Your task to perform on an android device: Add macbook air to the cart on costco.com, then select checkout. Image 0: 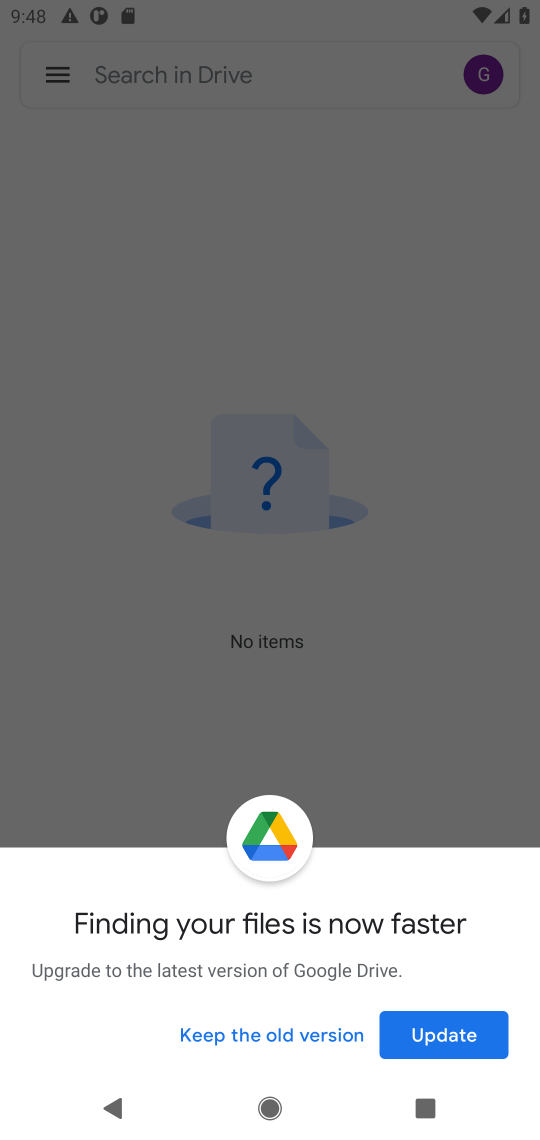
Step 0: press home button
Your task to perform on an android device: Add macbook air to the cart on costco.com, then select checkout. Image 1: 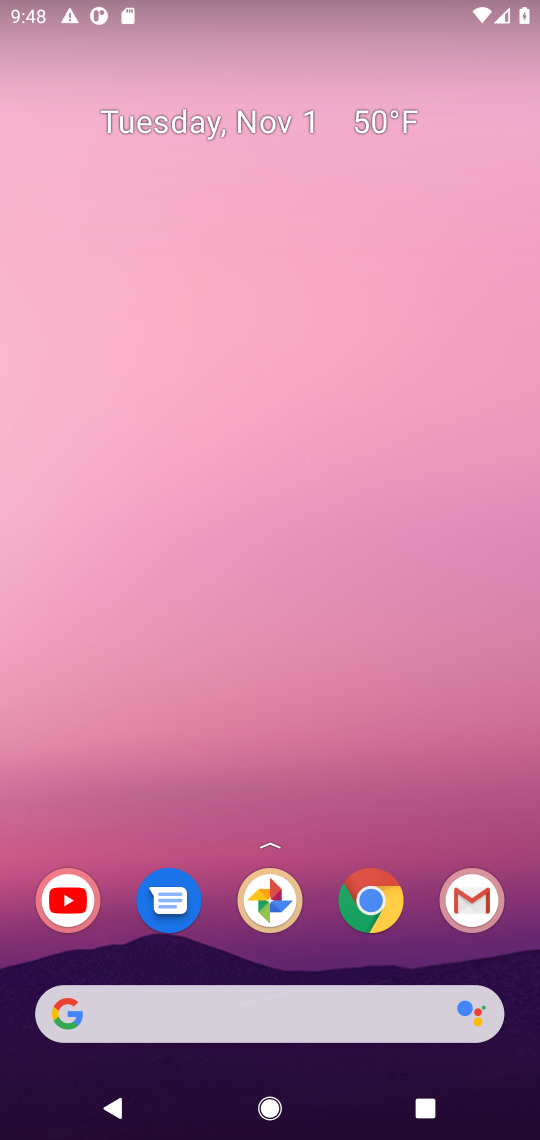
Step 1: click (389, 899)
Your task to perform on an android device: Add macbook air to the cart on costco.com, then select checkout. Image 2: 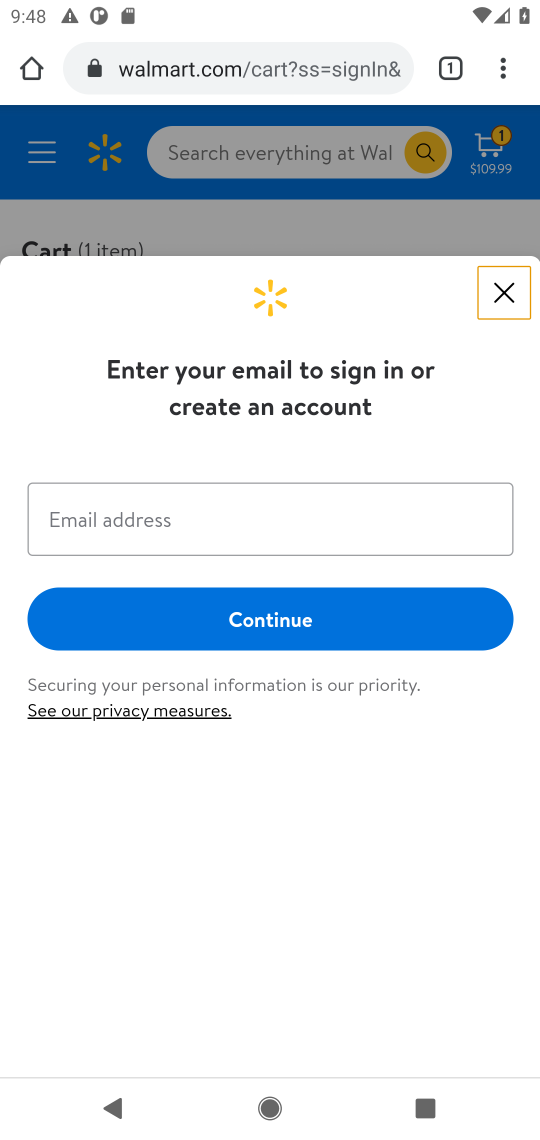
Step 2: click (298, 52)
Your task to perform on an android device: Add macbook air to the cart on costco.com, then select checkout. Image 3: 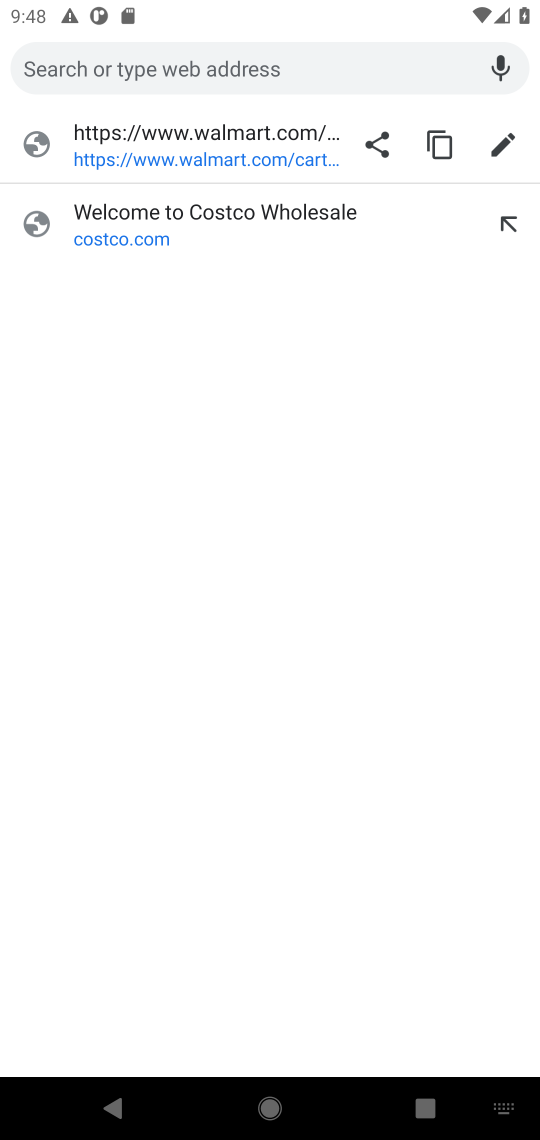
Step 3: click (311, 197)
Your task to perform on an android device: Add macbook air to the cart on costco.com, then select checkout. Image 4: 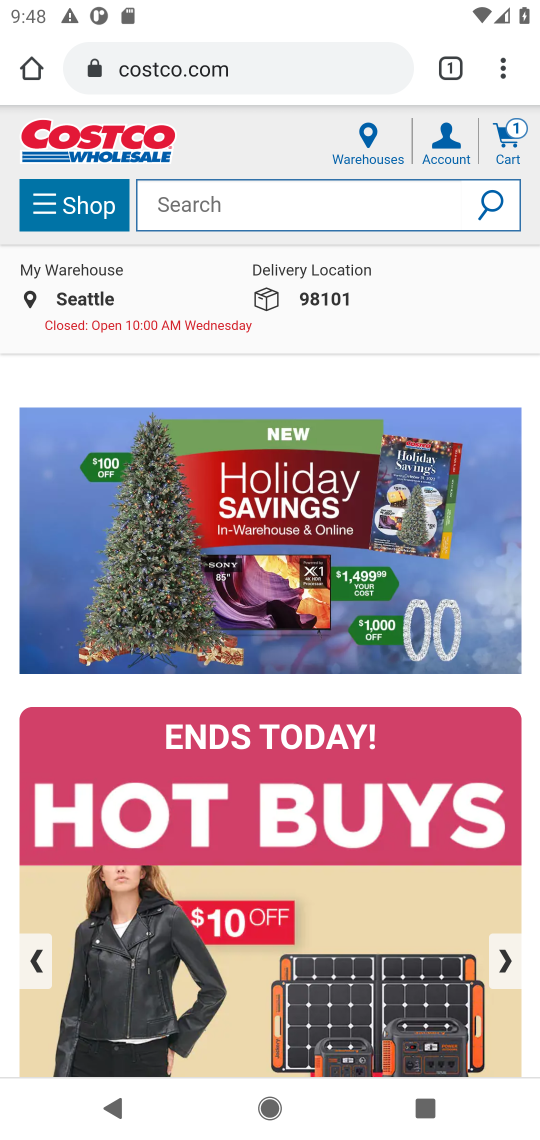
Step 4: click (305, 214)
Your task to perform on an android device: Add macbook air to the cart on costco.com, then select checkout. Image 5: 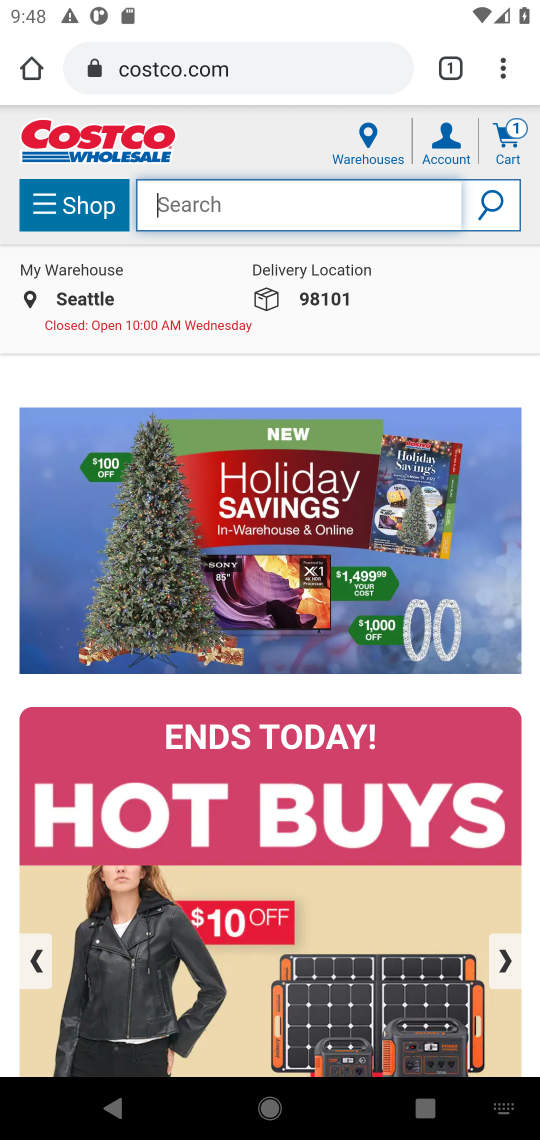
Step 5: type "macbook air"
Your task to perform on an android device: Add macbook air to the cart on costco.com, then select checkout. Image 6: 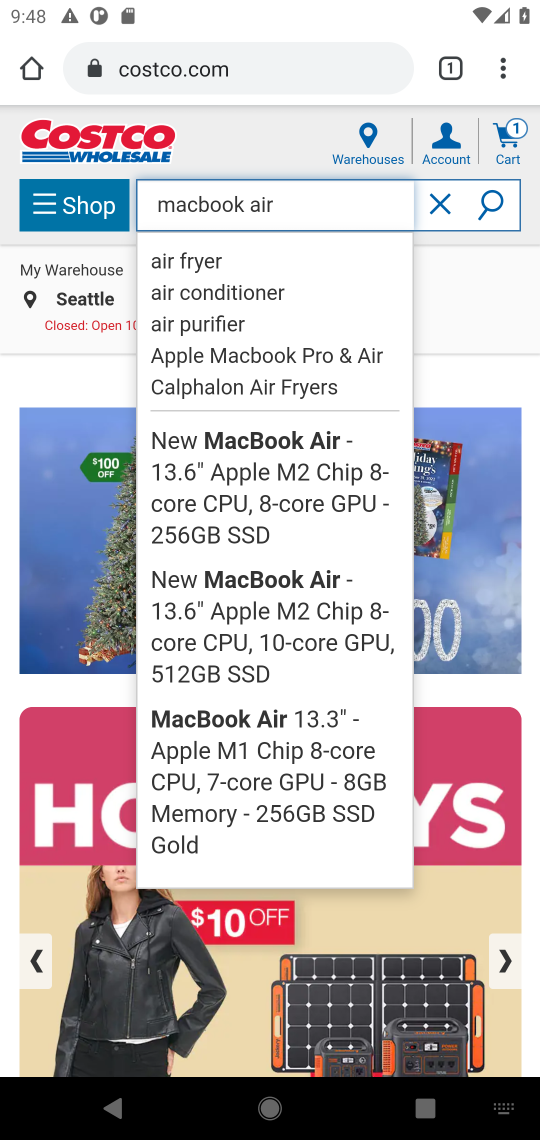
Step 6: click (492, 195)
Your task to perform on an android device: Add macbook air to the cart on costco.com, then select checkout. Image 7: 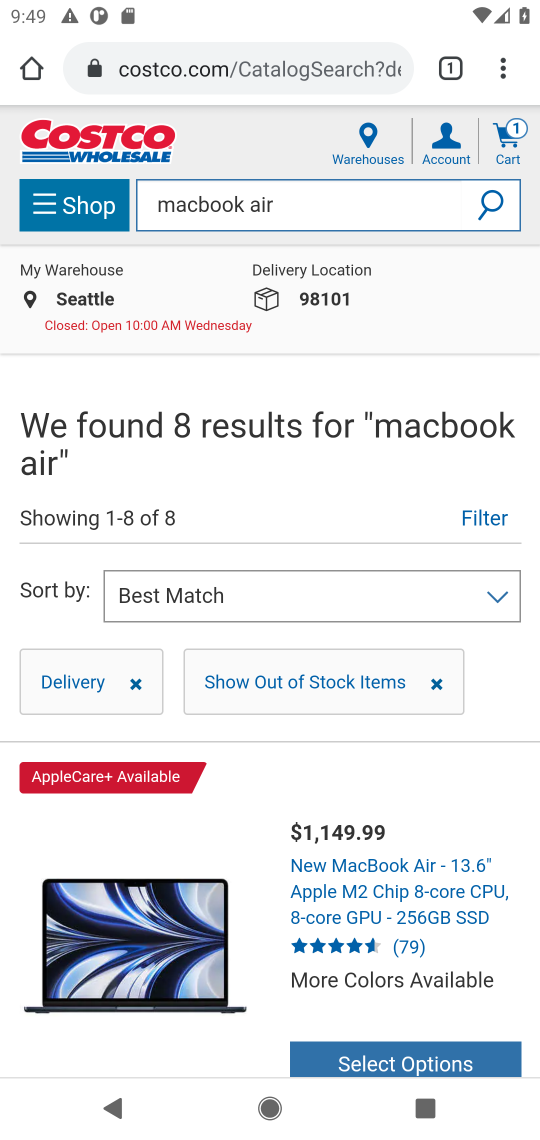
Step 7: drag from (263, 821) to (256, 196)
Your task to perform on an android device: Add macbook air to the cart on costco.com, then select checkout. Image 8: 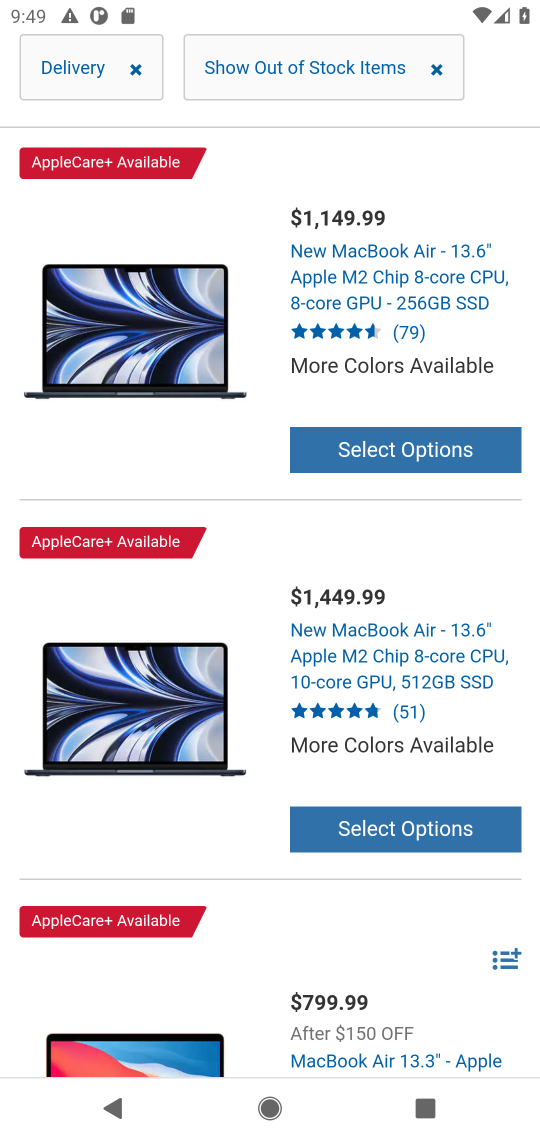
Step 8: click (382, 455)
Your task to perform on an android device: Add macbook air to the cart on costco.com, then select checkout. Image 9: 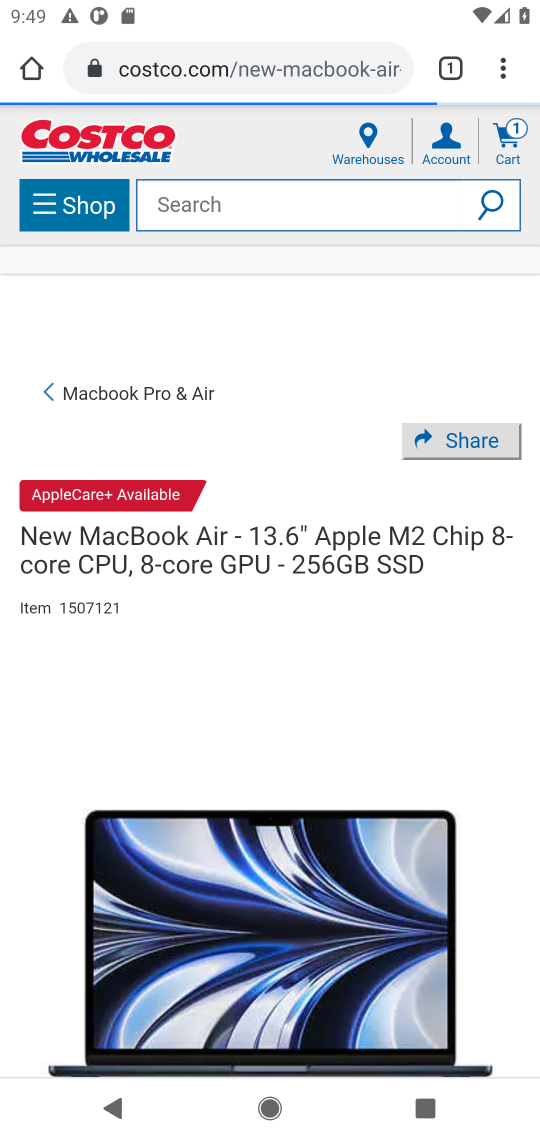
Step 9: drag from (201, 282) to (221, 102)
Your task to perform on an android device: Add macbook air to the cart on costco.com, then select checkout. Image 10: 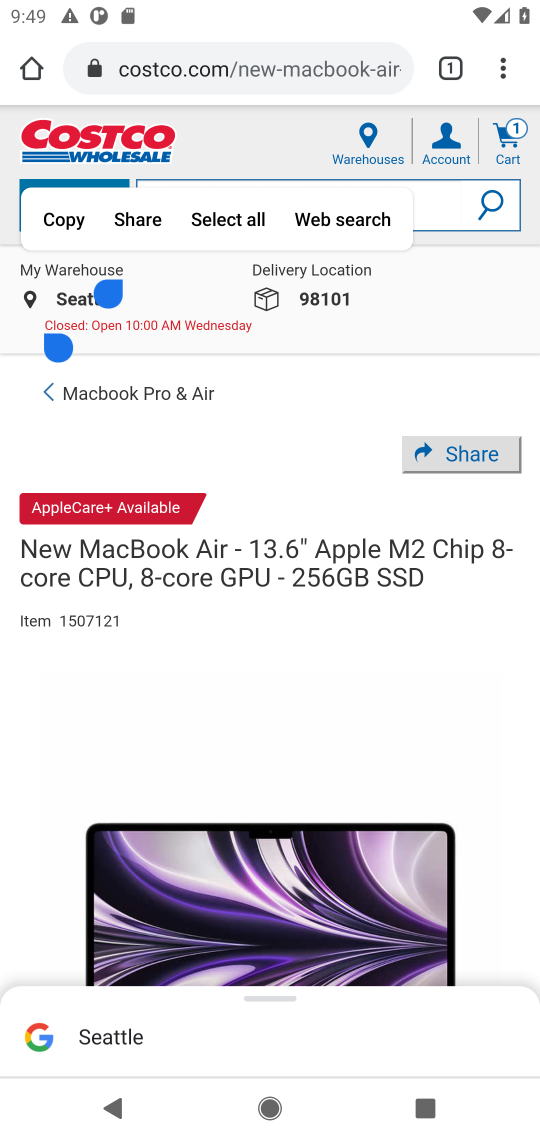
Step 10: drag from (212, 698) to (194, 292)
Your task to perform on an android device: Add macbook air to the cart on costco.com, then select checkout. Image 11: 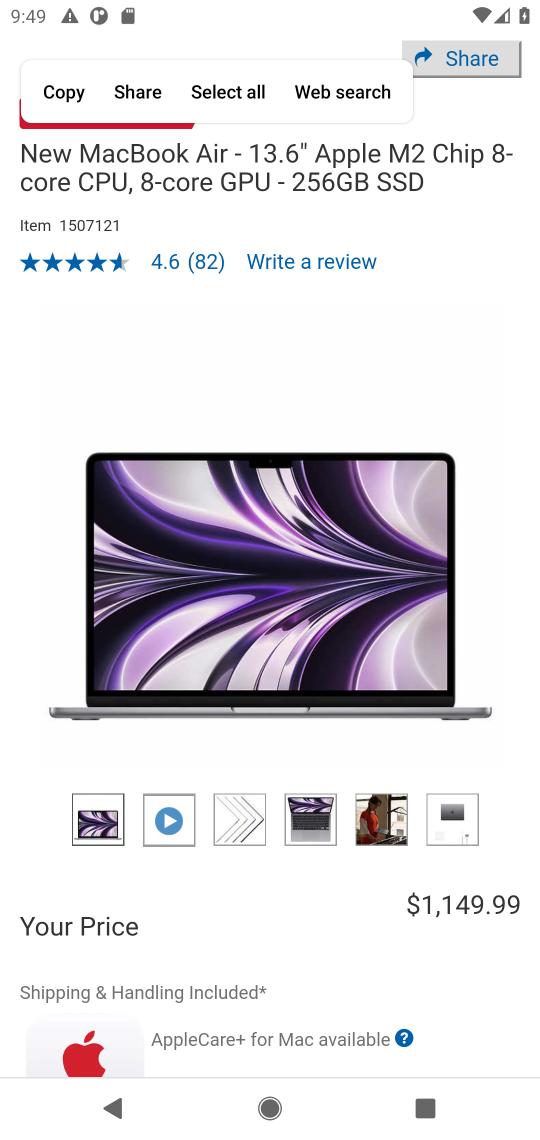
Step 11: click (237, 434)
Your task to perform on an android device: Add macbook air to the cart on costco.com, then select checkout. Image 12: 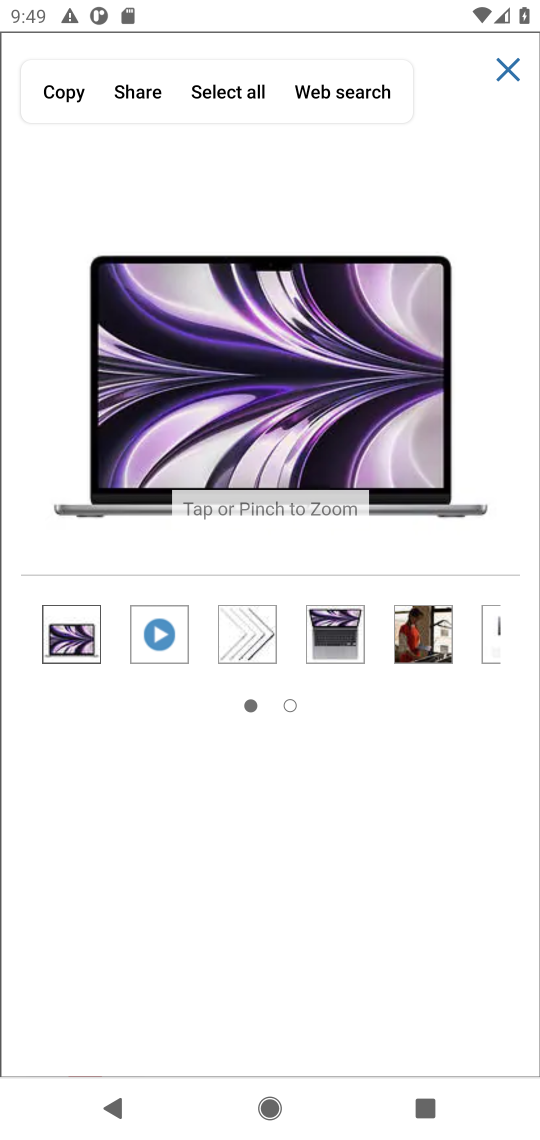
Step 12: click (501, 58)
Your task to perform on an android device: Add macbook air to the cart on costco.com, then select checkout. Image 13: 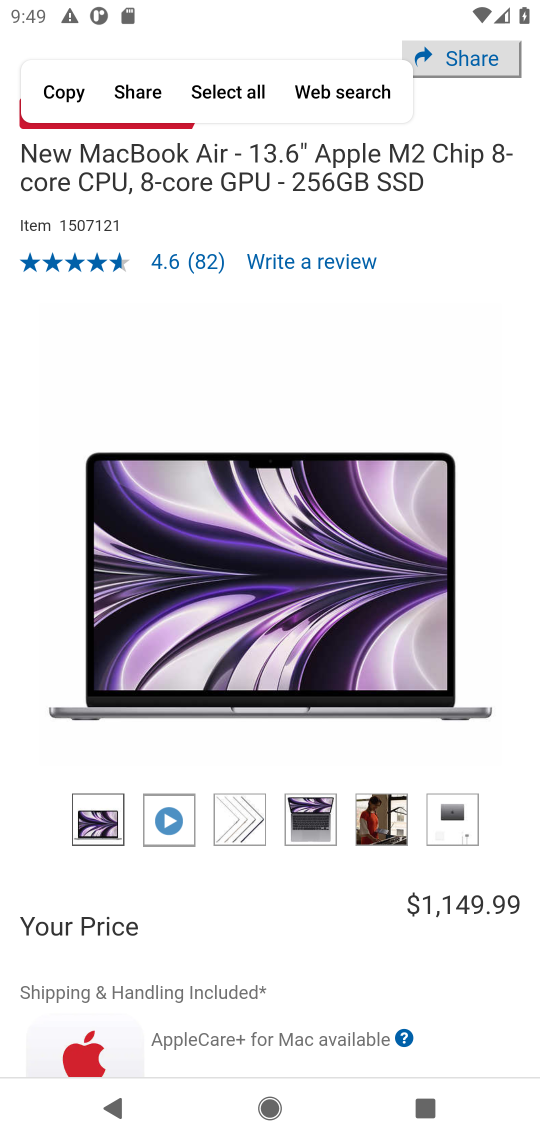
Step 13: drag from (273, 1009) to (295, 196)
Your task to perform on an android device: Add macbook air to the cart on costco.com, then select checkout. Image 14: 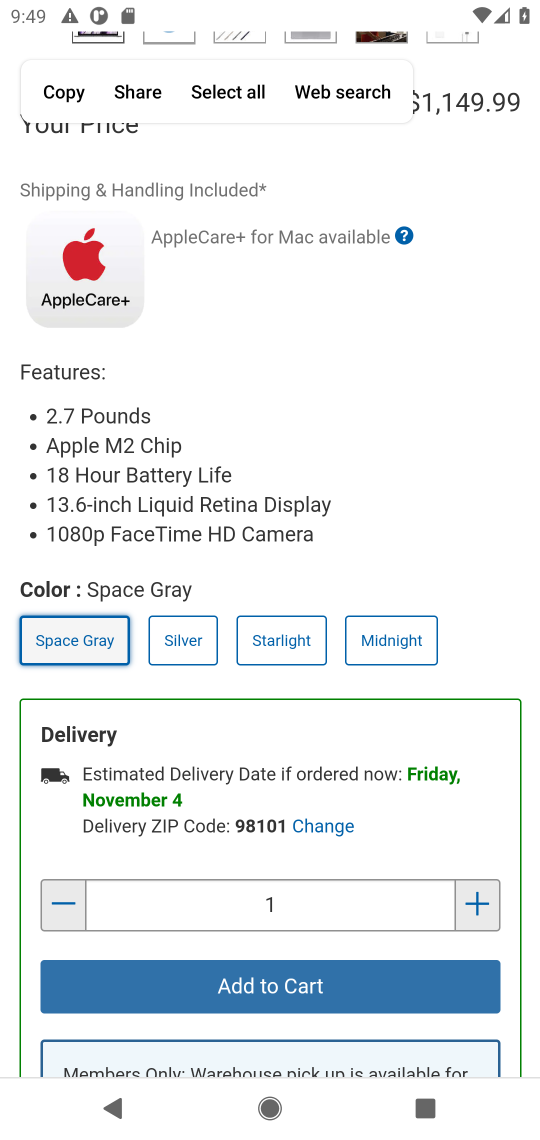
Step 14: click (272, 987)
Your task to perform on an android device: Add macbook air to the cart on costco.com, then select checkout. Image 15: 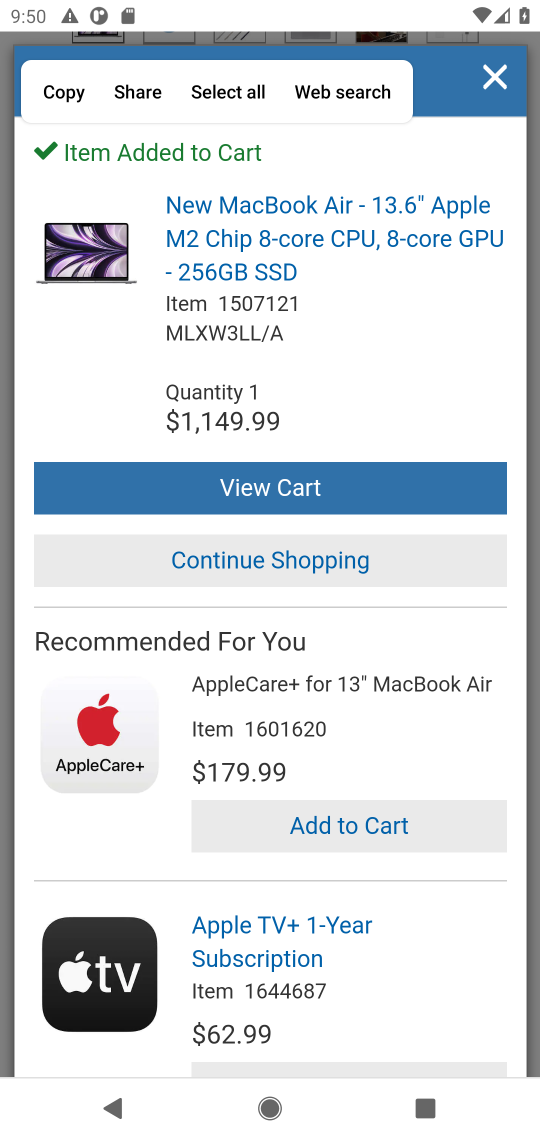
Step 15: click (344, 482)
Your task to perform on an android device: Add macbook air to the cart on costco.com, then select checkout. Image 16: 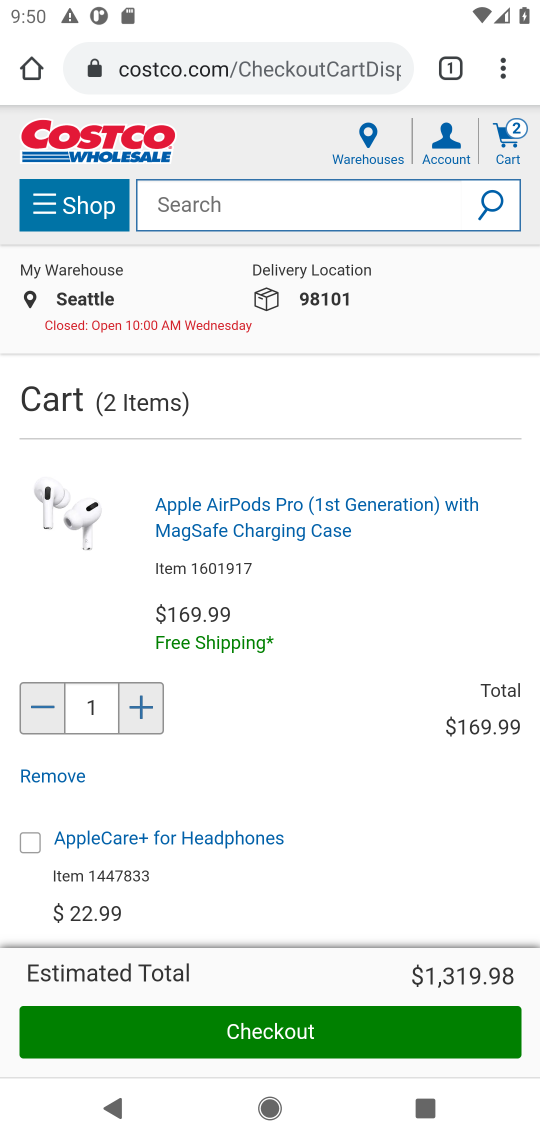
Step 16: click (251, 1030)
Your task to perform on an android device: Add macbook air to the cart on costco.com, then select checkout. Image 17: 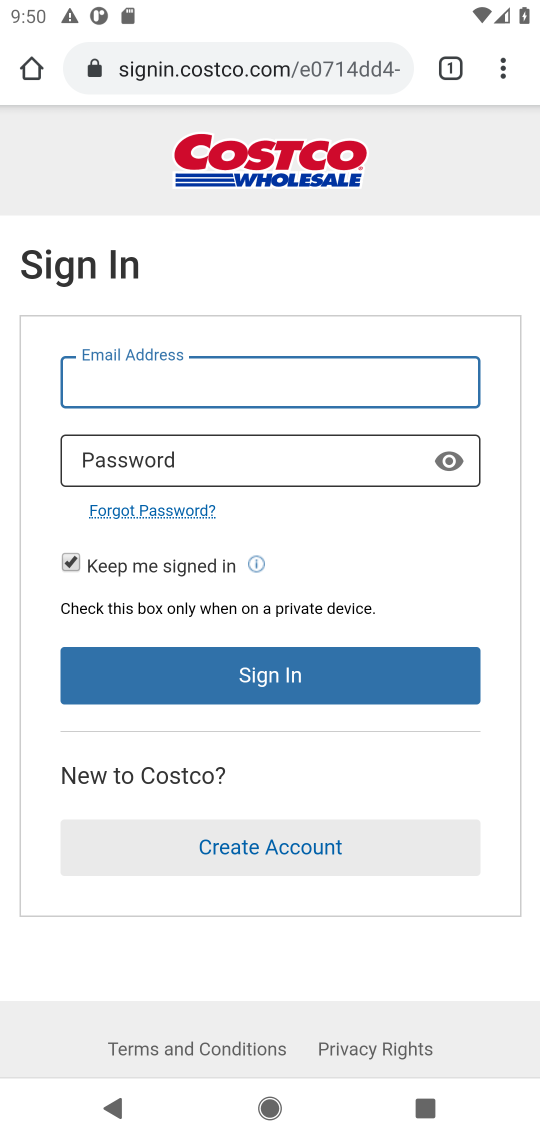
Step 17: task complete